Your task to perform on an android device: What's the weather going to be tomorrow? Image 0: 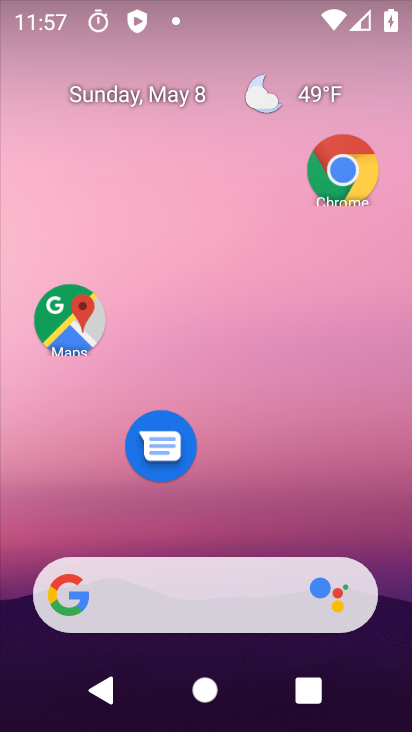
Step 0: drag from (269, 510) to (194, 1)
Your task to perform on an android device: What's the weather going to be tomorrow? Image 1: 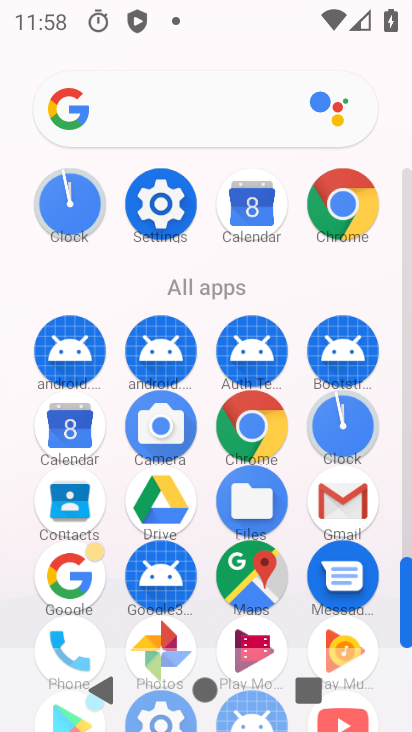
Step 1: drag from (299, 582) to (294, 350)
Your task to perform on an android device: What's the weather going to be tomorrow? Image 2: 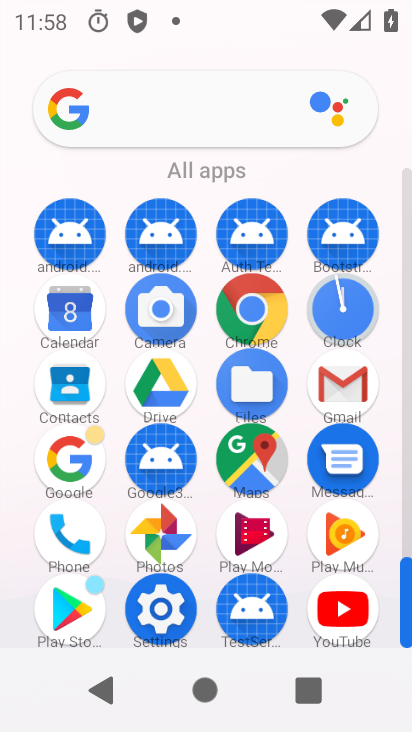
Step 2: drag from (214, 258) to (247, 624)
Your task to perform on an android device: What's the weather going to be tomorrow? Image 3: 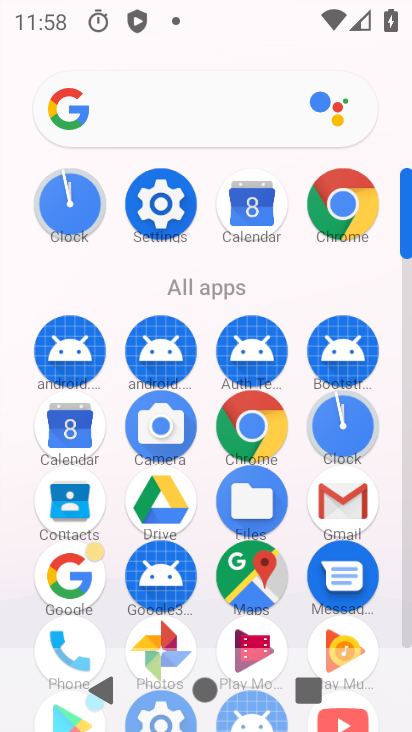
Step 3: click (88, 683)
Your task to perform on an android device: What's the weather going to be tomorrow? Image 4: 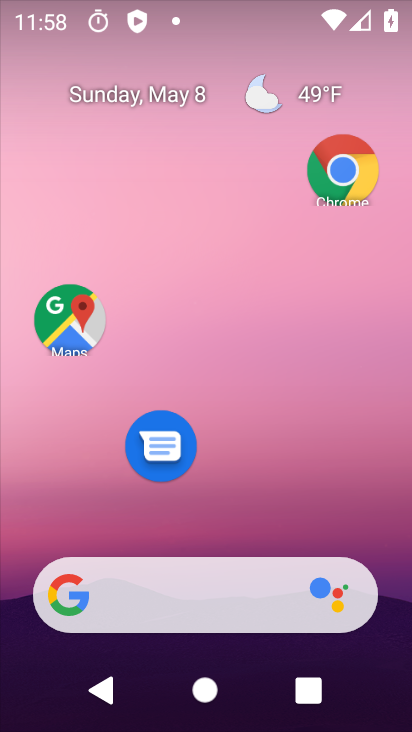
Step 4: click (273, 88)
Your task to perform on an android device: What's the weather going to be tomorrow? Image 5: 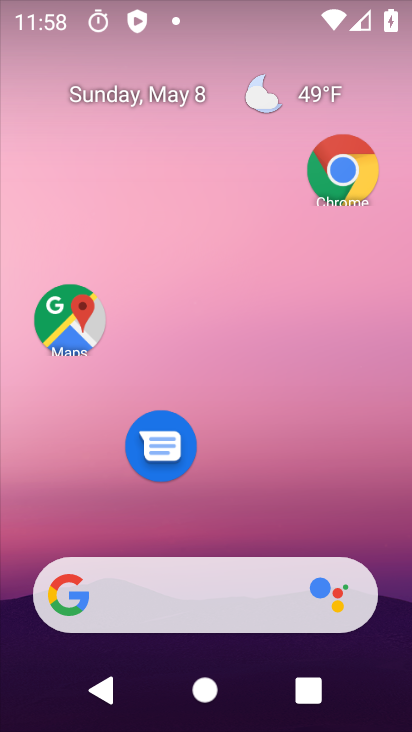
Step 5: click (284, 101)
Your task to perform on an android device: What's the weather going to be tomorrow? Image 6: 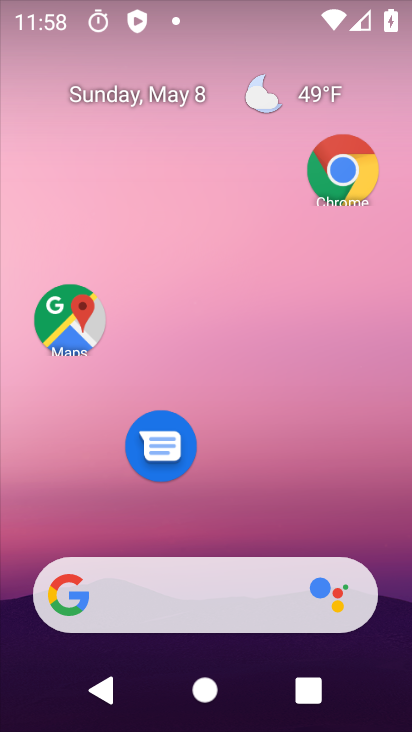
Step 6: click (301, 93)
Your task to perform on an android device: What's the weather going to be tomorrow? Image 7: 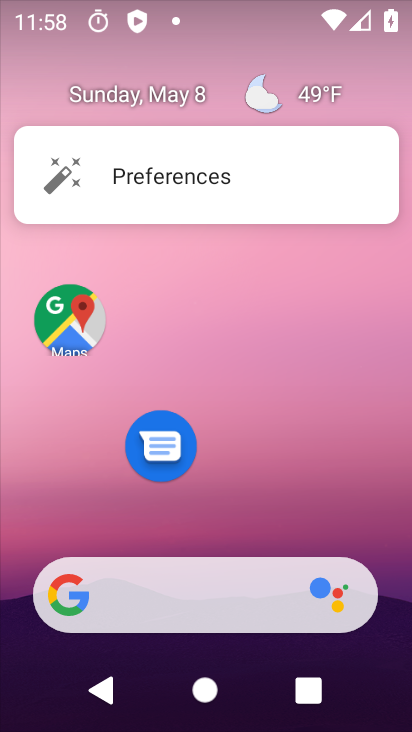
Step 7: click (277, 89)
Your task to perform on an android device: What's the weather going to be tomorrow? Image 8: 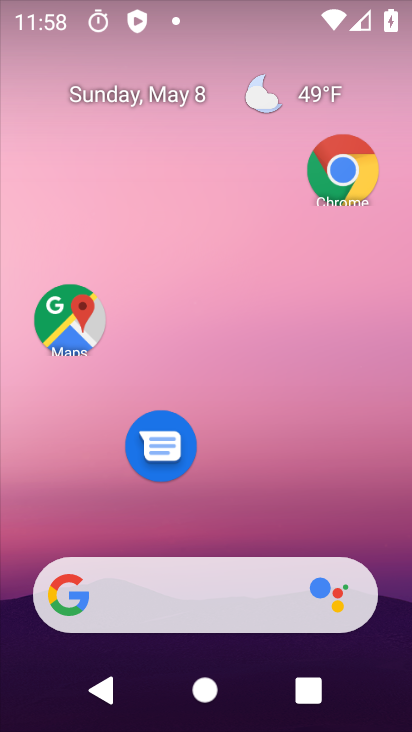
Step 8: click (259, 93)
Your task to perform on an android device: What's the weather going to be tomorrow? Image 9: 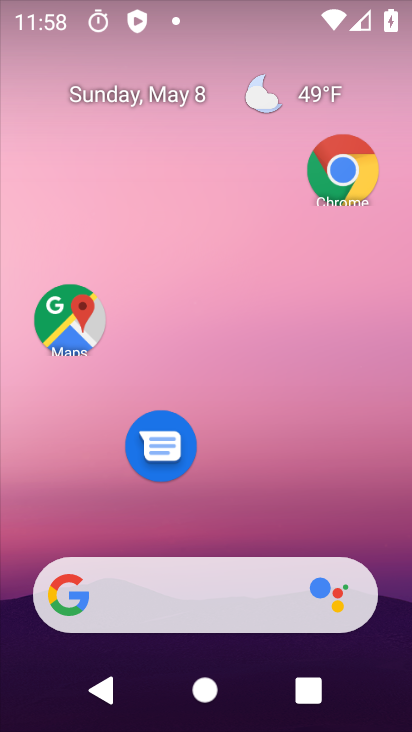
Step 9: click (259, 93)
Your task to perform on an android device: What's the weather going to be tomorrow? Image 10: 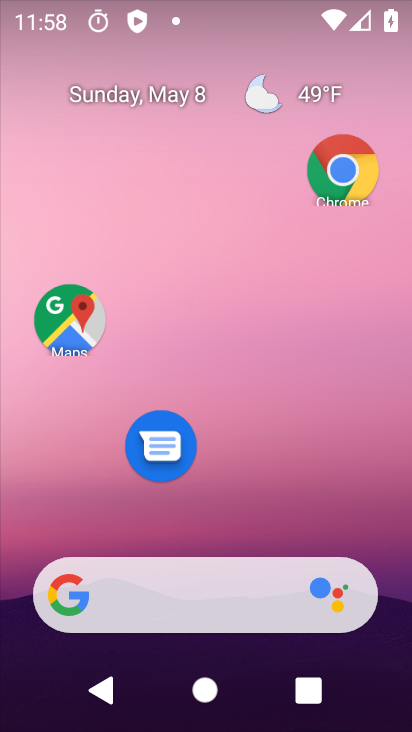
Step 10: click (277, 98)
Your task to perform on an android device: What's the weather going to be tomorrow? Image 11: 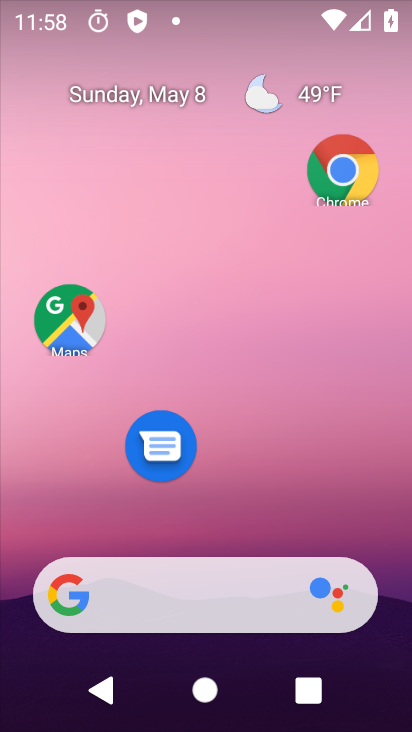
Step 11: click (266, 100)
Your task to perform on an android device: What's the weather going to be tomorrow? Image 12: 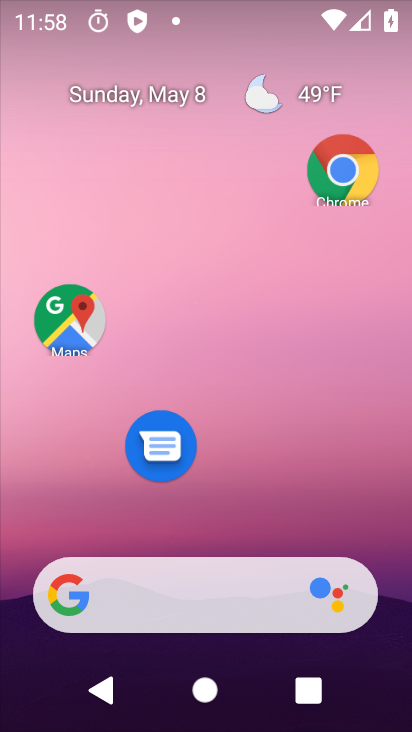
Step 12: click (267, 99)
Your task to perform on an android device: What's the weather going to be tomorrow? Image 13: 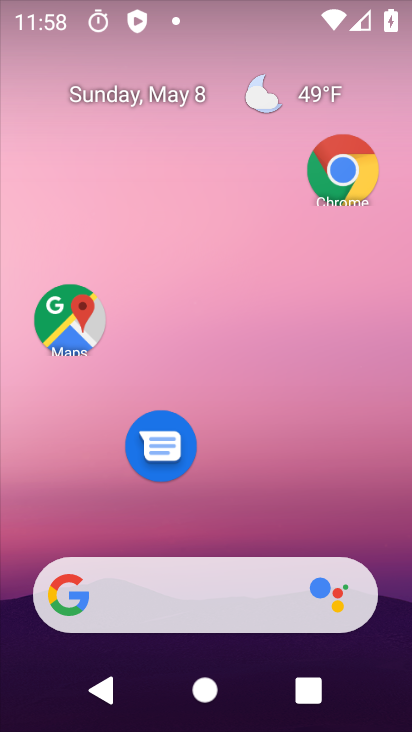
Step 13: click (271, 101)
Your task to perform on an android device: What's the weather going to be tomorrow? Image 14: 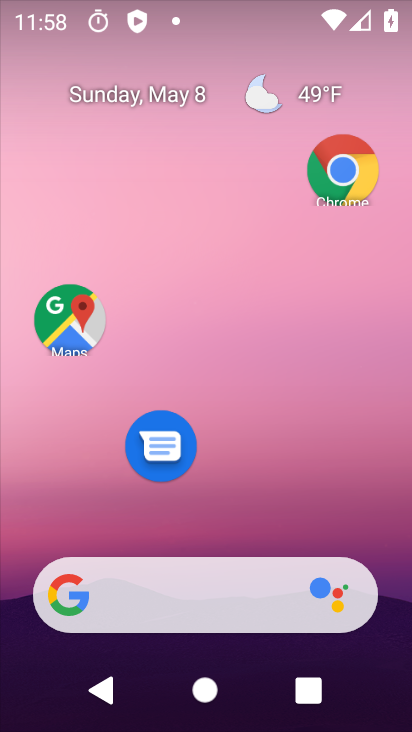
Step 14: click (261, 99)
Your task to perform on an android device: What's the weather going to be tomorrow? Image 15: 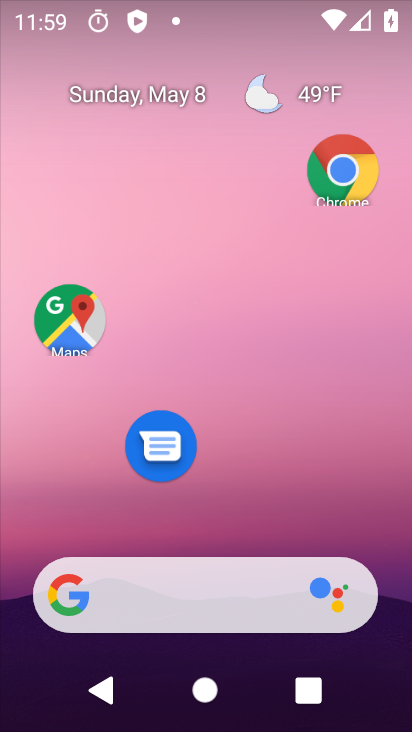
Step 15: click (261, 99)
Your task to perform on an android device: What's the weather going to be tomorrow? Image 16: 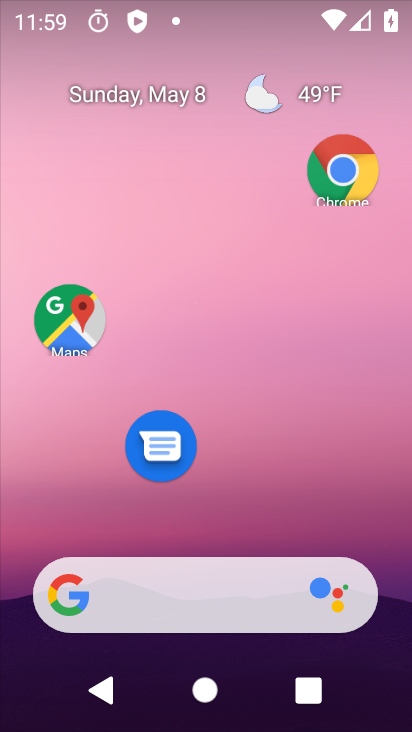
Step 16: click (261, 99)
Your task to perform on an android device: What's the weather going to be tomorrow? Image 17: 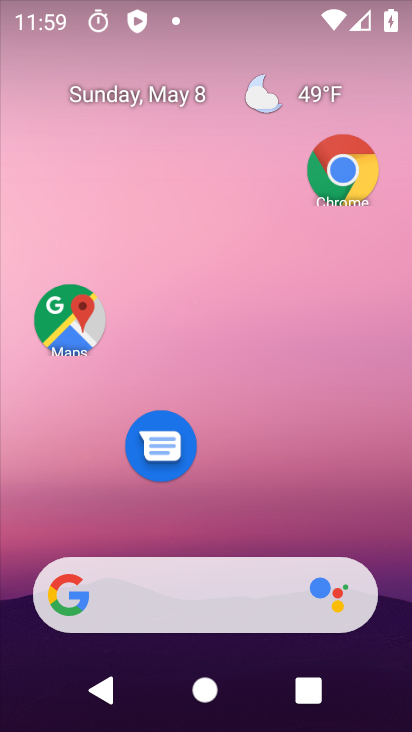
Step 17: click (261, 99)
Your task to perform on an android device: What's the weather going to be tomorrow? Image 18: 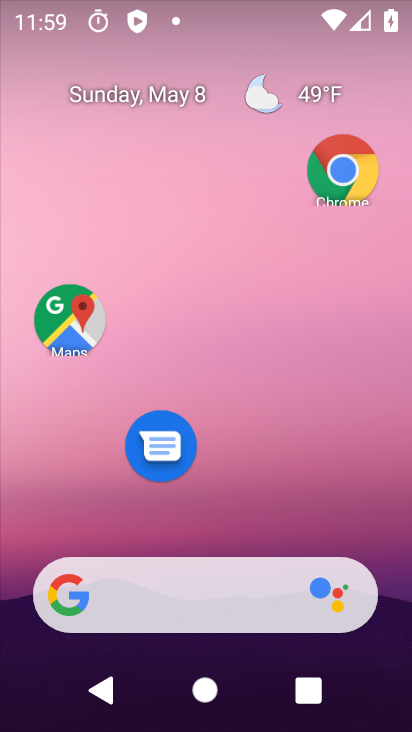
Step 18: click (261, 99)
Your task to perform on an android device: What's the weather going to be tomorrow? Image 19: 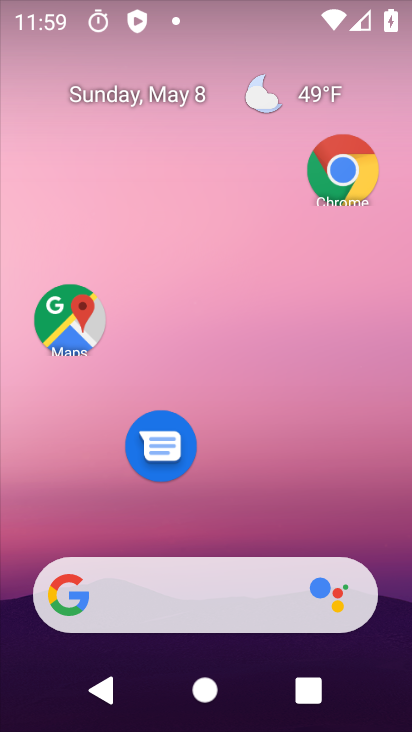
Step 19: click (261, 99)
Your task to perform on an android device: What's the weather going to be tomorrow? Image 20: 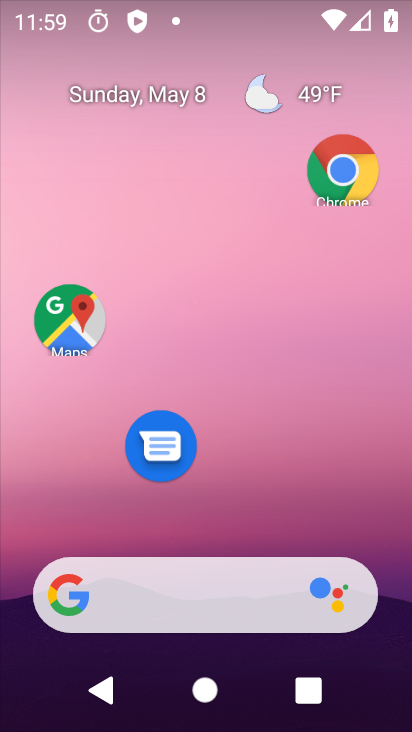
Step 20: click (262, 97)
Your task to perform on an android device: What's the weather going to be tomorrow? Image 21: 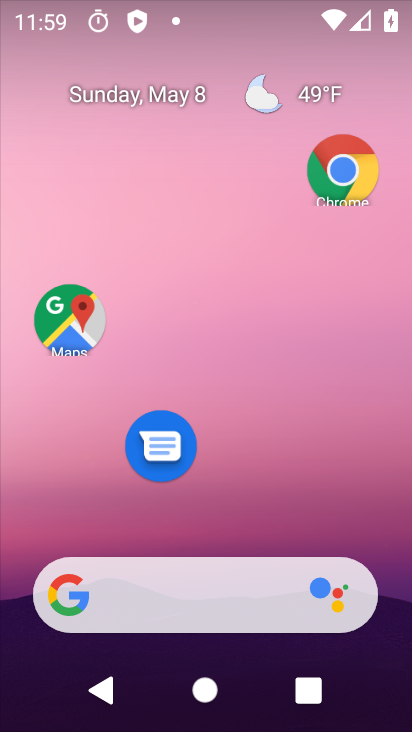
Step 21: drag from (246, 390) to (356, 134)
Your task to perform on an android device: What's the weather going to be tomorrow? Image 22: 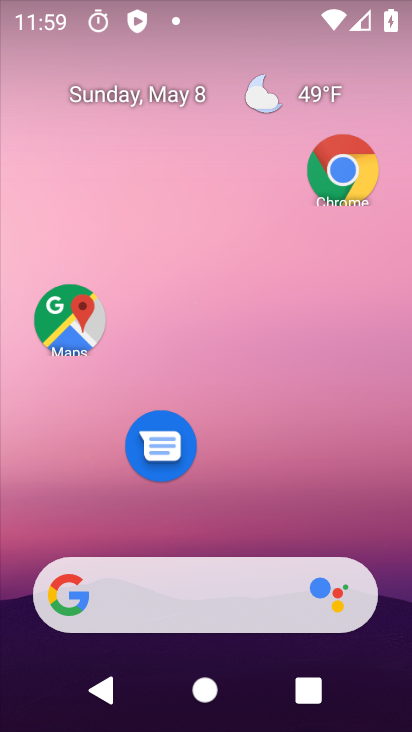
Step 22: drag from (247, 497) to (411, 105)
Your task to perform on an android device: What's the weather going to be tomorrow? Image 23: 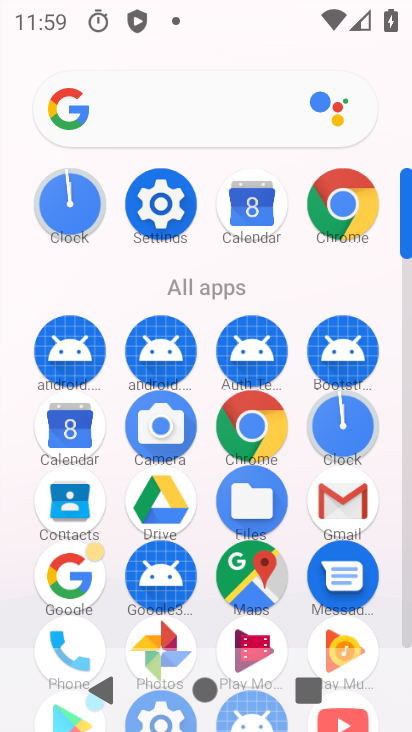
Step 23: drag from (53, 713) to (231, 383)
Your task to perform on an android device: What's the weather going to be tomorrow? Image 24: 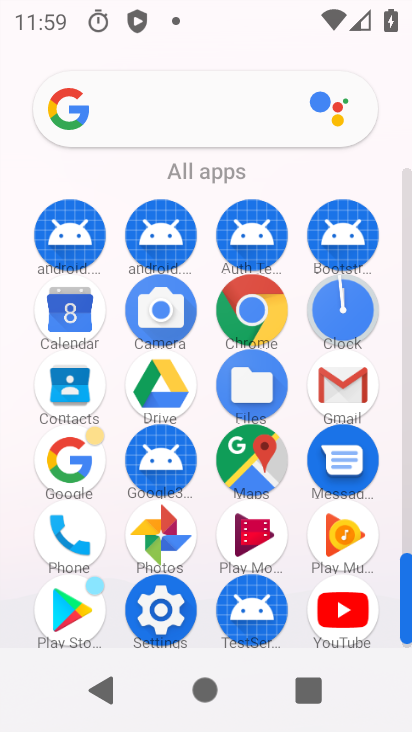
Step 24: drag from (187, 598) to (280, 267)
Your task to perform on an android device: What's the weather going to be tomorrow? Image 25: 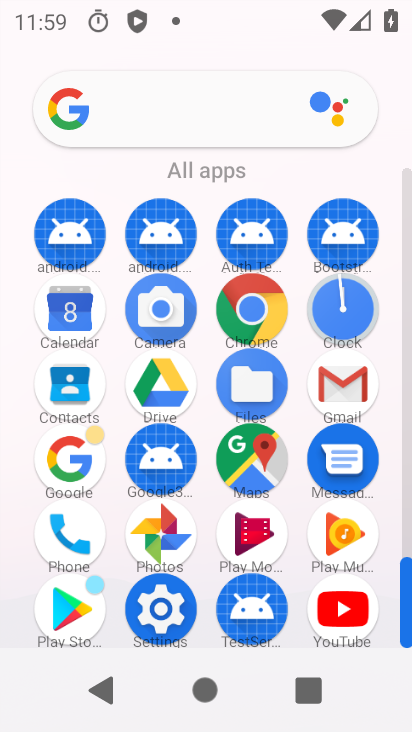
Step 25: drag from (83, 585) to (228, 293)
Your task to perform on an android device: What's the weather going to be tomorrow? Image 26: 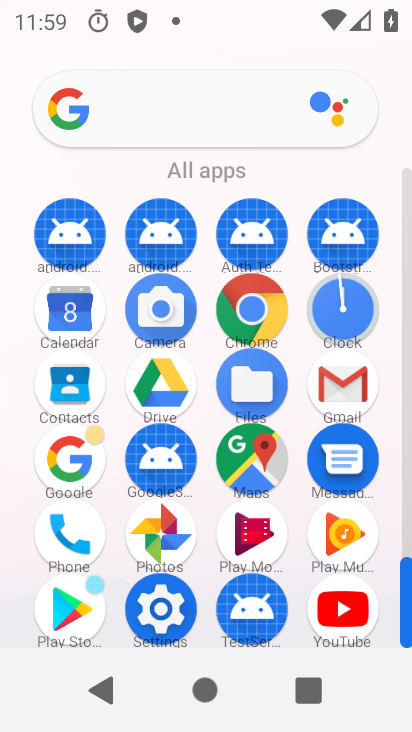
Step 26: drag from (253, 565) to (335, 110)
Your task to perform on an android device: What's the weather going to be tomorrow? Image 27: 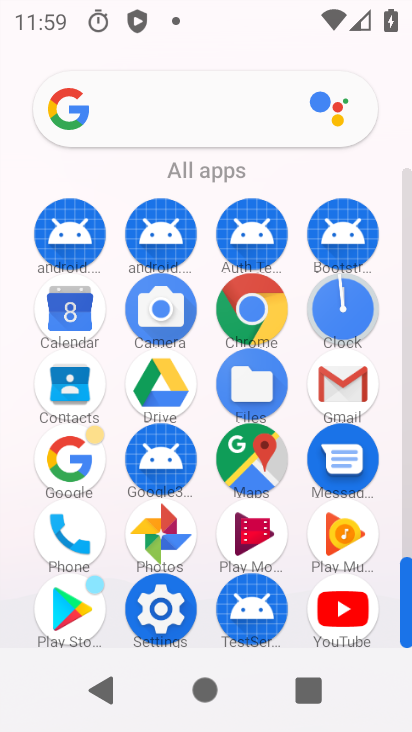
Step 27: drag from (249, 568) to (267, 234)
Your task to perform on an android device: What's the weather going to be tomorrow? Image 28: 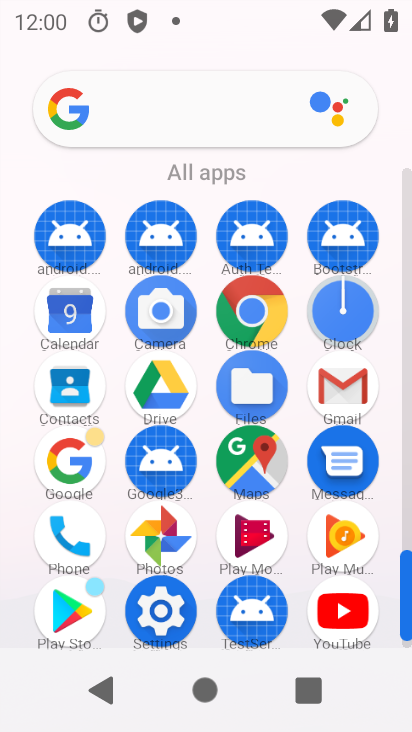
Step 28: click (63, 450)
Your task to perform on an android device: What's the weather going to be tomorrow? Image 29: 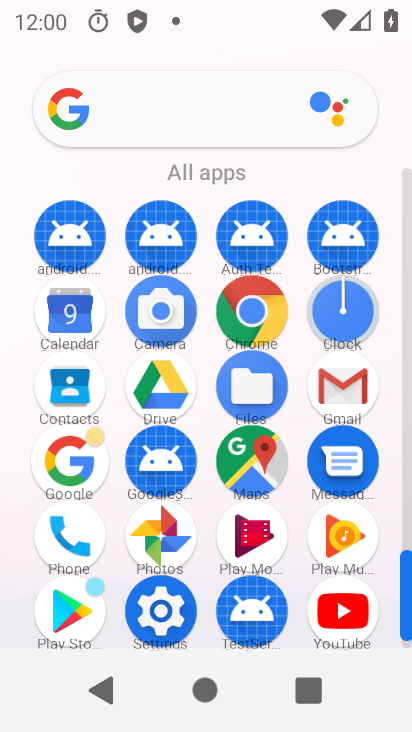
Step 29: click (63, 450)
Your task to perform on an android device: What's the weather going to be tomorrow? Image 30: 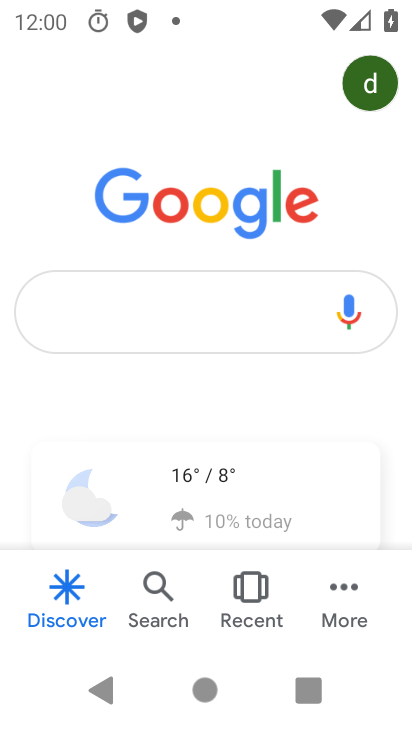
Step 30: click (194, 301)
Your task to perform on an android device: What's the weather going to be tomorrow? Image 31: 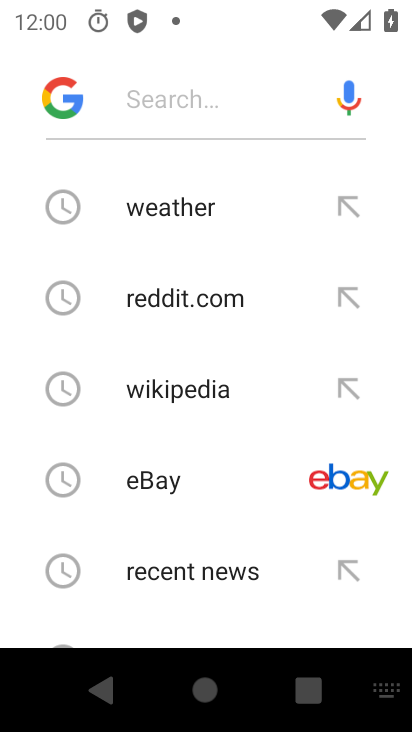
Step 31: click (174, 213)
Your task to perform on an android device: What's the weather going to be tomorrow? Image 32: 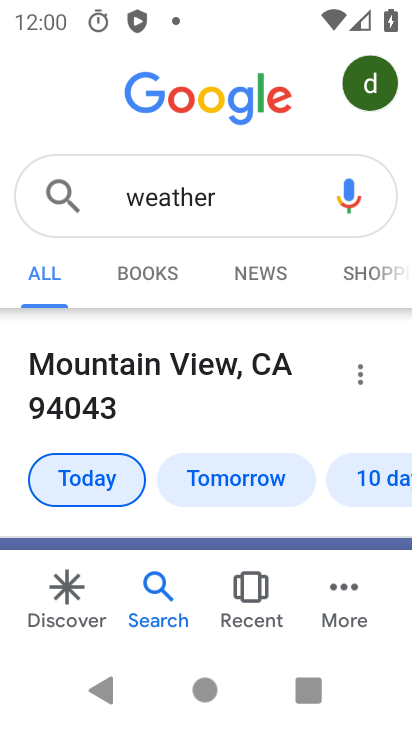
Step 32: click (227, 467)
Your task to perform on an android device: What's the weather going to be tomorrow? Image 33: 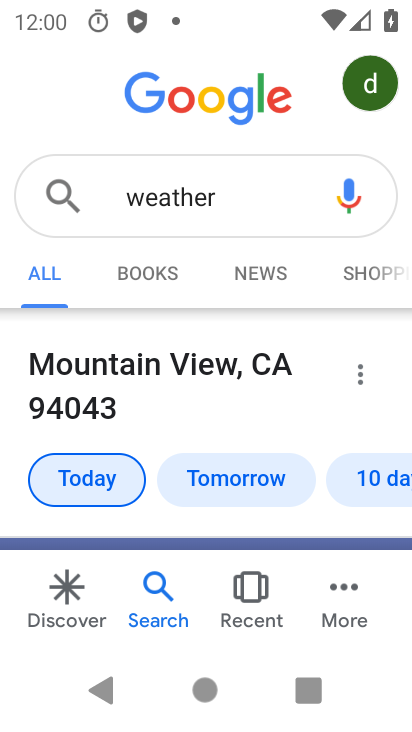
Step 33: click (263, 483)
Your task to perform on an android device: What's the weather going to be tomorrow? Image 34: 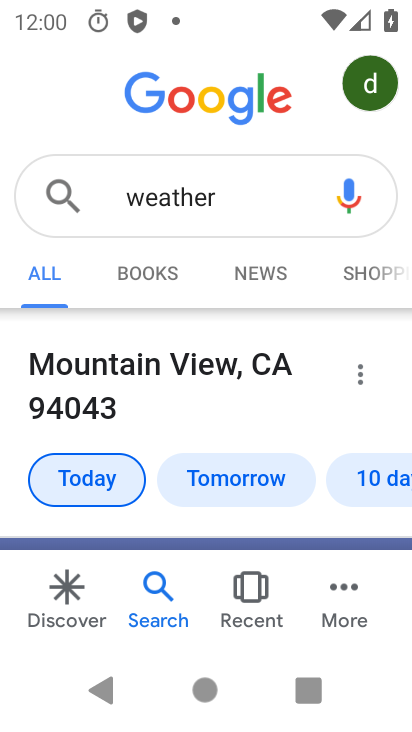
Step 34: click (262, 470)
Your task to perform on an android device: What's the weather going to be tomorrow? Image 35: 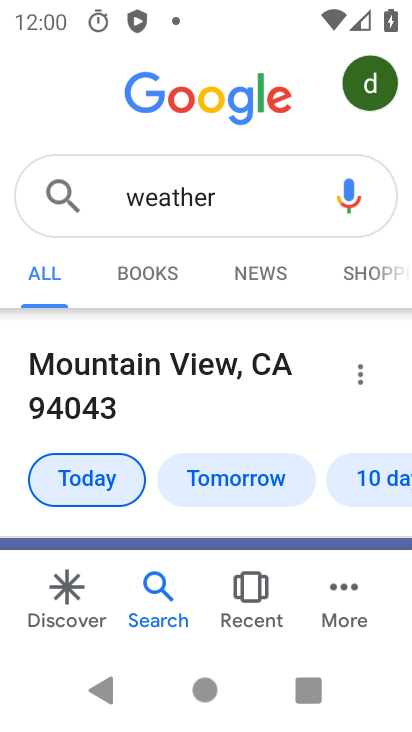
Step 35: click (265, 472)
Your task to perform on an android device: What's the weather going to be tomorrow? Image 36: 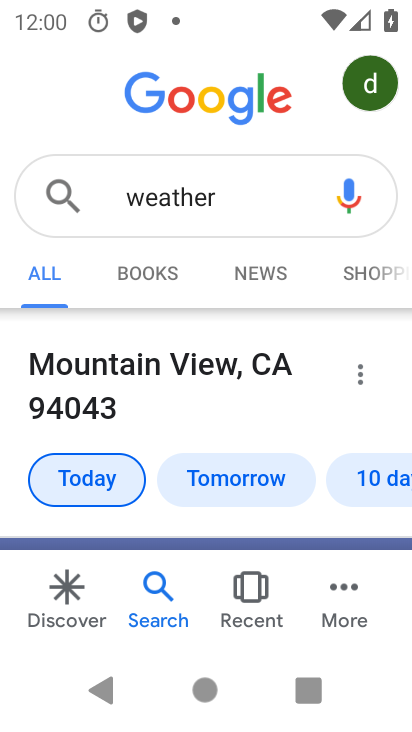
Step 36: click (267, 481)
Your task to perform on an android device: What's the weather going to be tomorrow? Image 37: 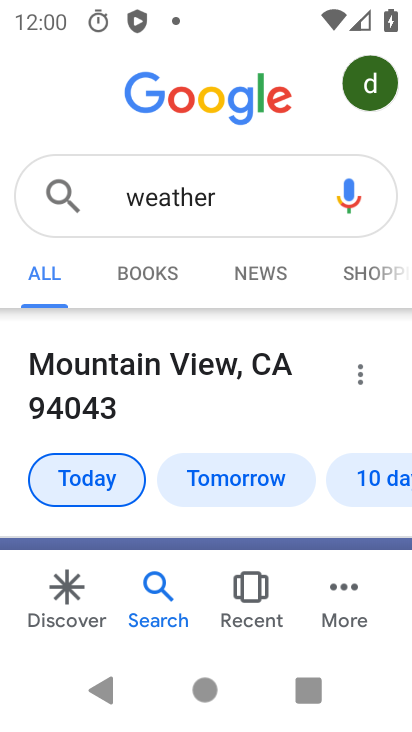
Step 37: task complete